Your task to perform on an android device: open sync settings in chrome Image 0: 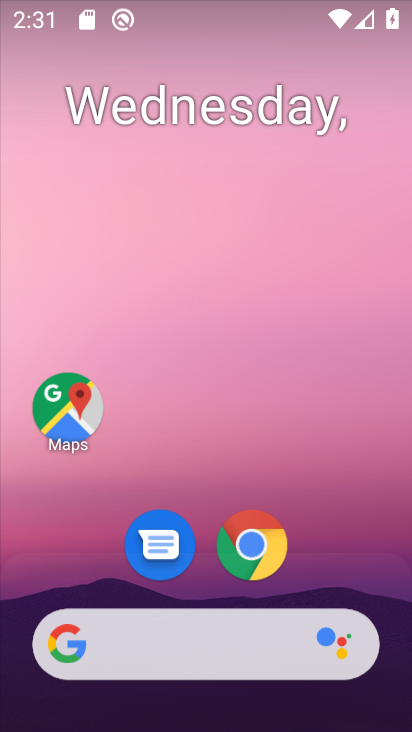
Step 0: click (253, 541)
Your task to perform on an android device: open sync settings in chrome Image 1: 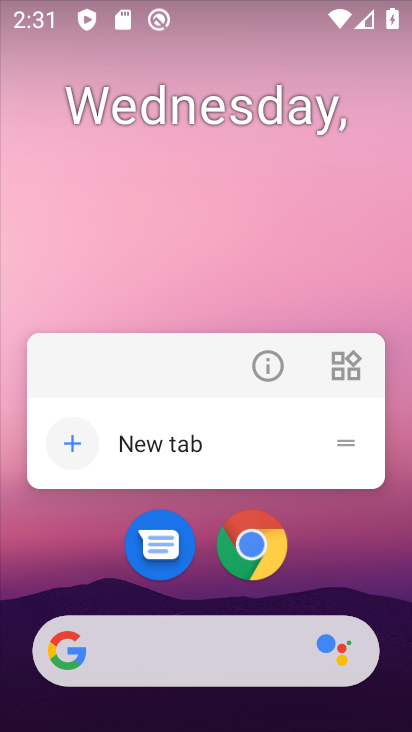
Step 1: click (253, 541)
Your task to perform on an android device: open sync settings in chrome Image 2: 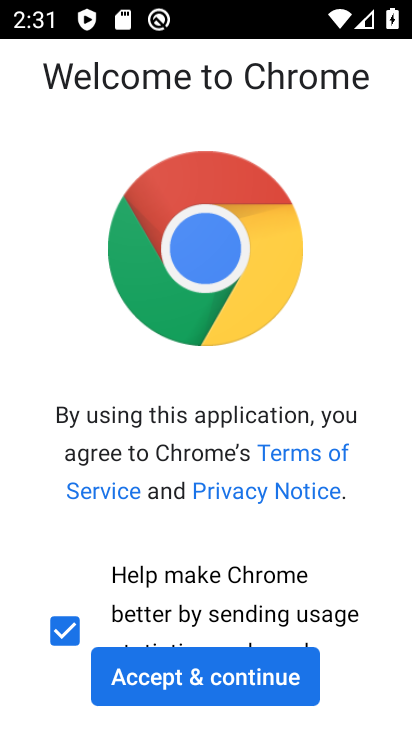
Step 2: click (195, 674)
Your task to perform on an android device: open sync settings in chrome Image 3: 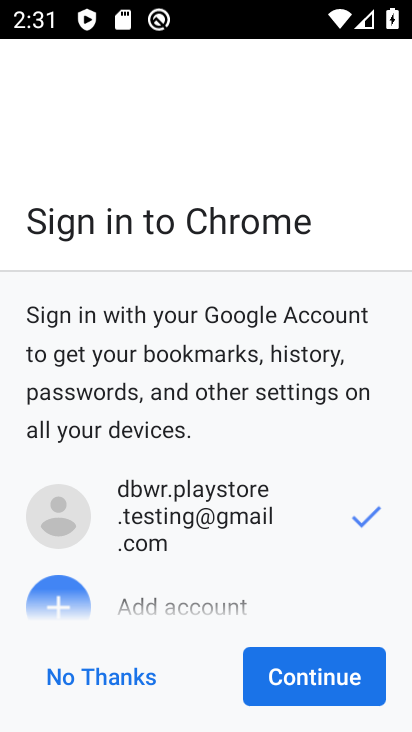
Step 3: click (301, 683)
Your task to perform on an android device: open sync settings in chrome Image 4: 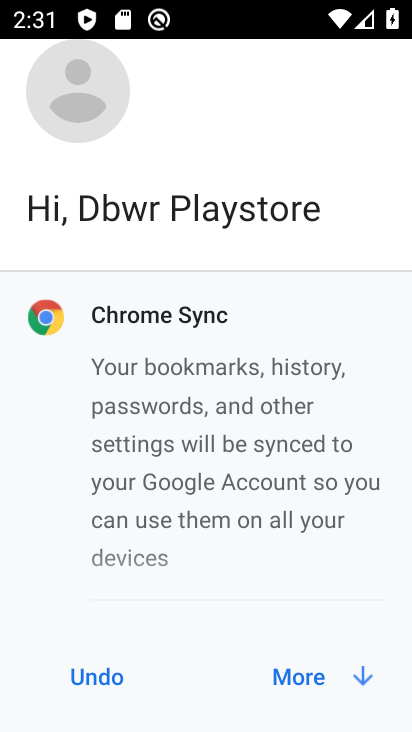
Step 4: click (300, 678)
Your task to perform on an android device: open sync settings in chrome Image 5: 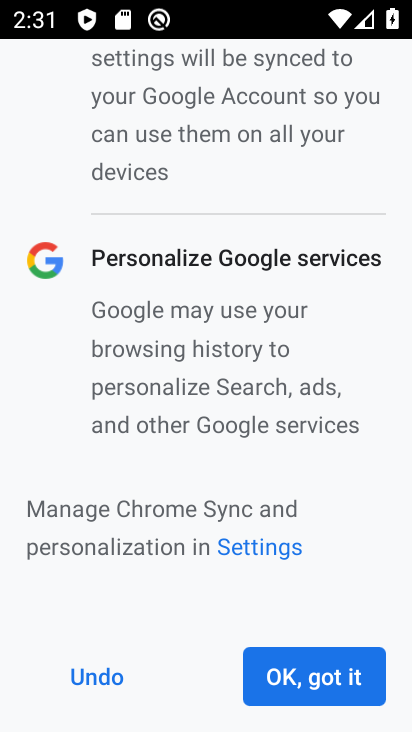
Step 5: click (300, 678)
Your task to perform on an android device: open sync settings in chrome Image 6: 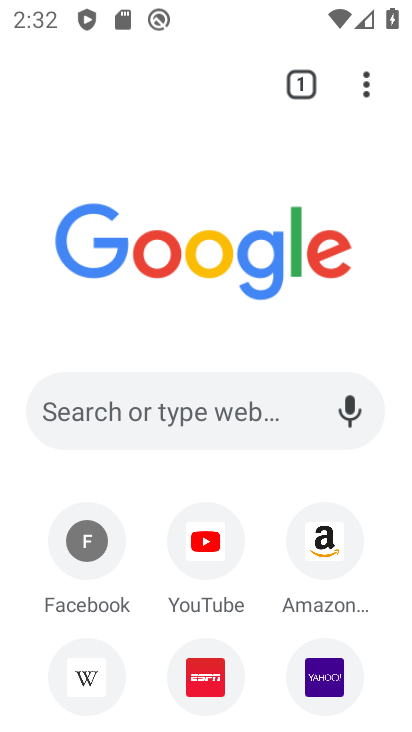
Step 6: click (366, 94)
Your task to perform on an android device: open sync settings in chrome Image 7: 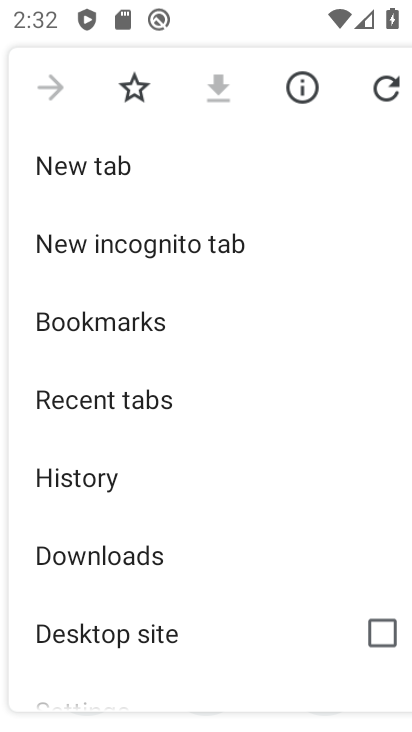
Step 7: drag from (116, 607) to (101, 168)
Your task to perform on an android device: open sync settings in chrome Image 8: 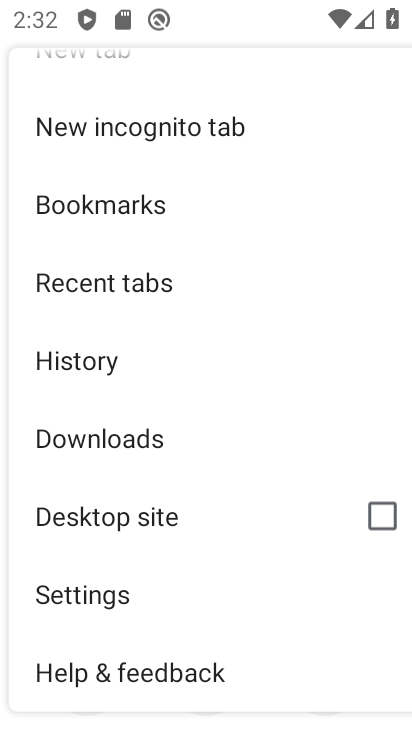
Step 8: click (105, 590)
Your task to perform on an android device: open sync settings in chrome Image 9: 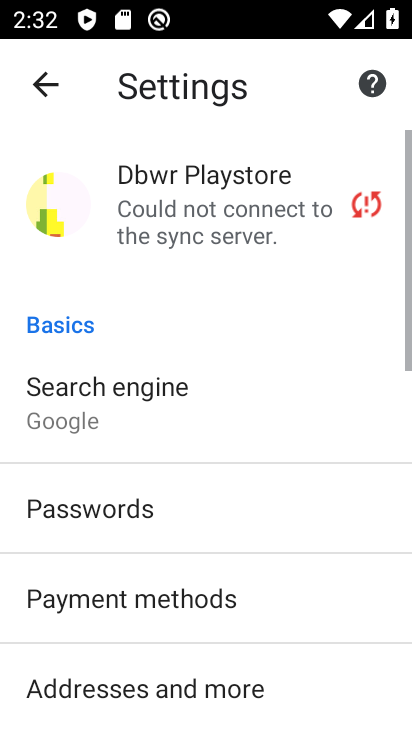
Step 9: drag from (180, 595) to (147, 246)
Your task to perform on an android device: open sync settings in chrome Image 10: 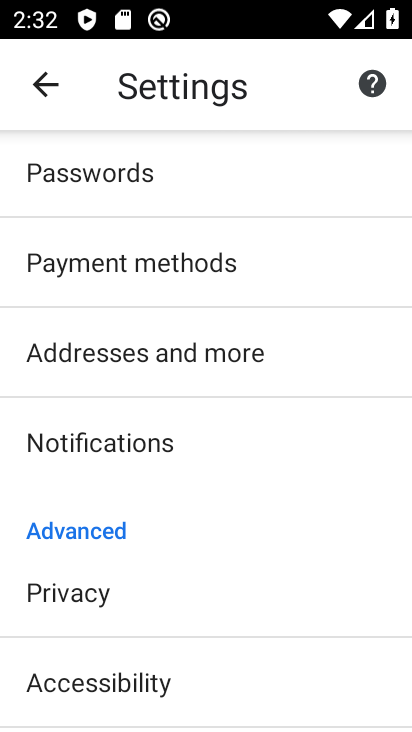
Step 10: drag from (159, 599) to (159, 245)
Your task to perform on an android device: open sync settings in chrome Image 11: 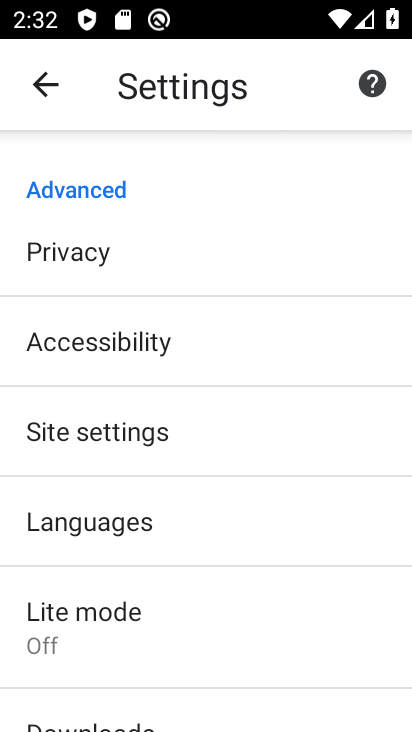
Step 11: click (96, 432)
Your task to perform on an android device: open sync settings in chrome Image 12: 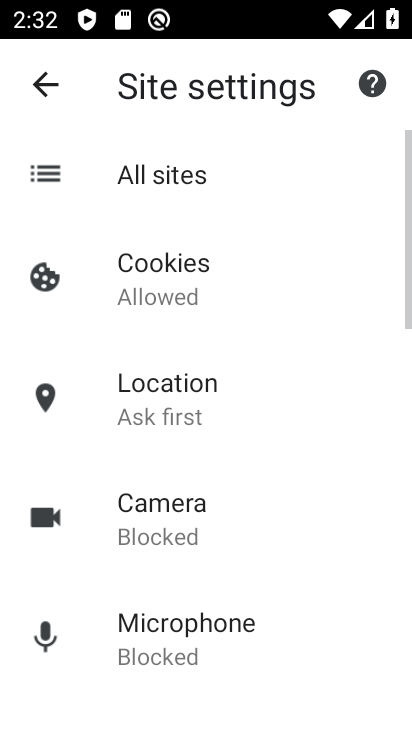
Step 12: drag from (156, 610) to (146, 212)
Your task to perform on an android device: open sync settings in chrome Image 13: 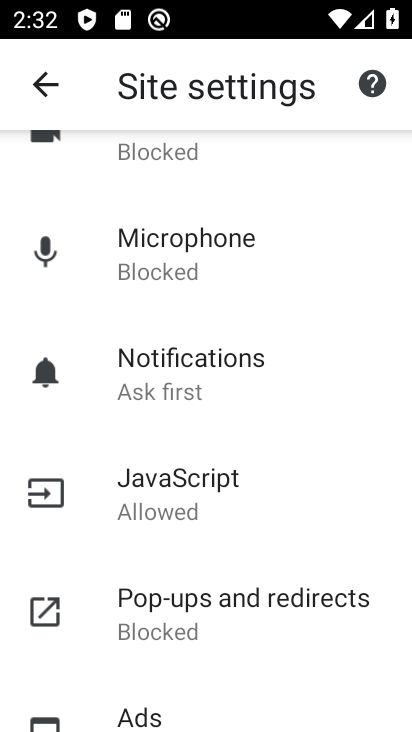
Step 13: drag from (176, 638) to (179, 209)
Your task to perform on an android device: open sync settings in chrome Image 14: 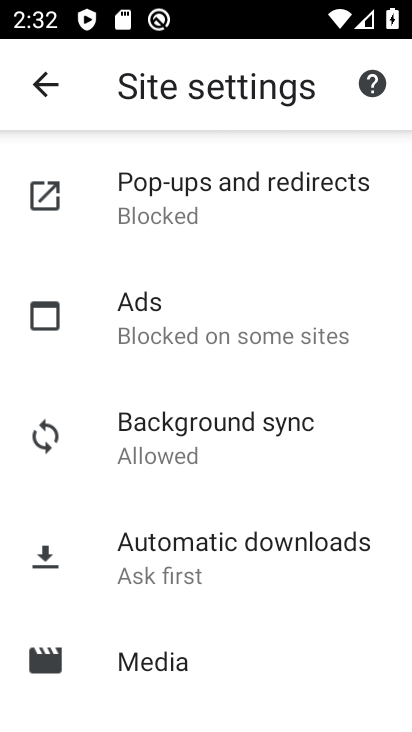
Step 14: click (156, 434)
Your task to perform on an android device: open sync settings in chrome Image 15: 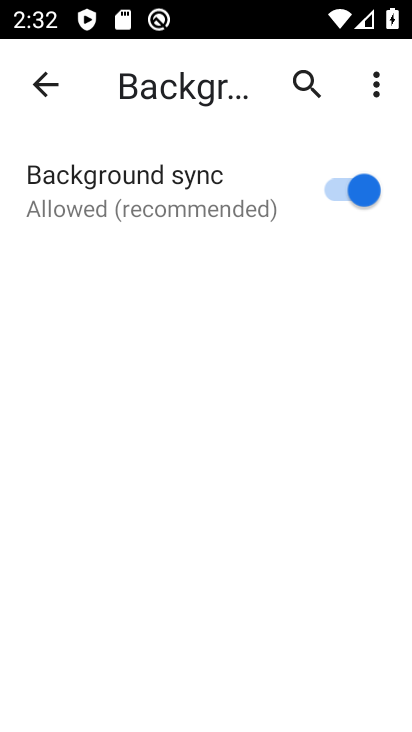
Step 15: task complete